Your task to perform on an android device: Do I have any events tomorrow? Image 0: 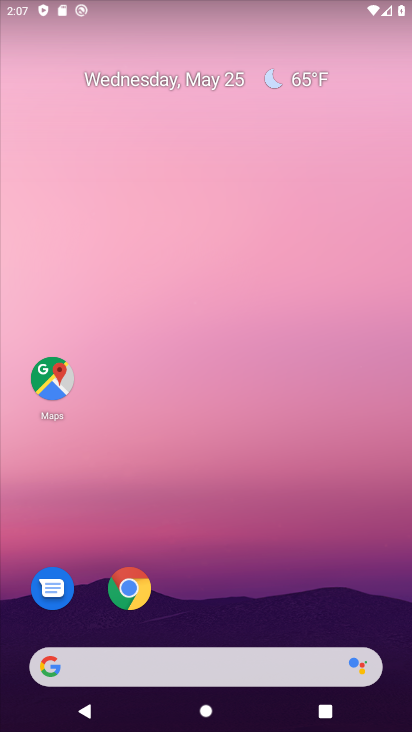
Step 0: drag from (203, 547) to (219, 119)
Your task to perform on an android device: Do I have any events tomorrow? Image 1: 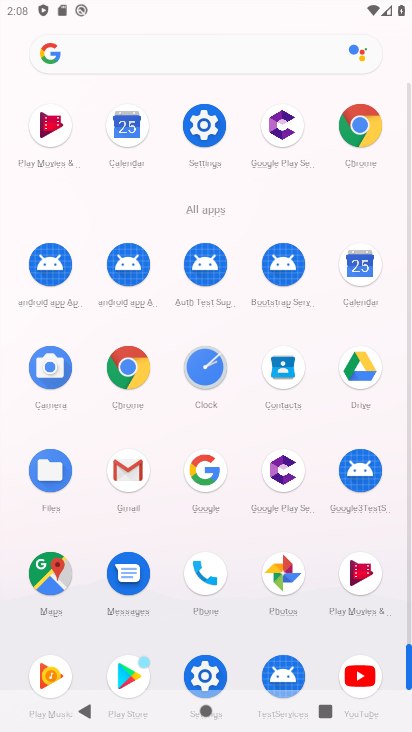
Step 1: click (354, 264)
Your task to perform on an android device: Do I have any events tomorrow? Image 2: 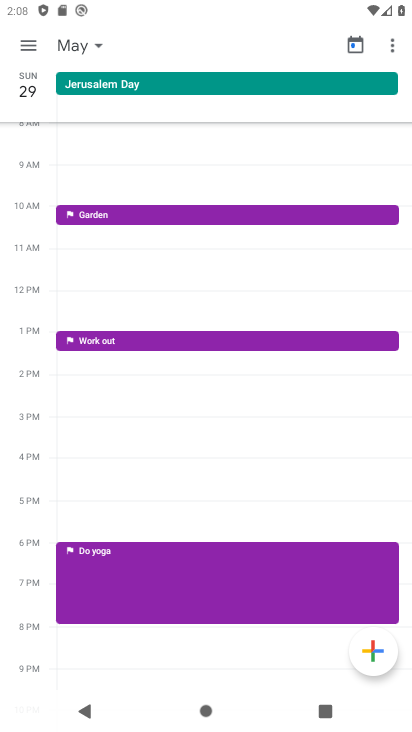
Step 2: click (88, 51)
Your task to perform on an android device: Do I have any events tomorrow? Image 3: 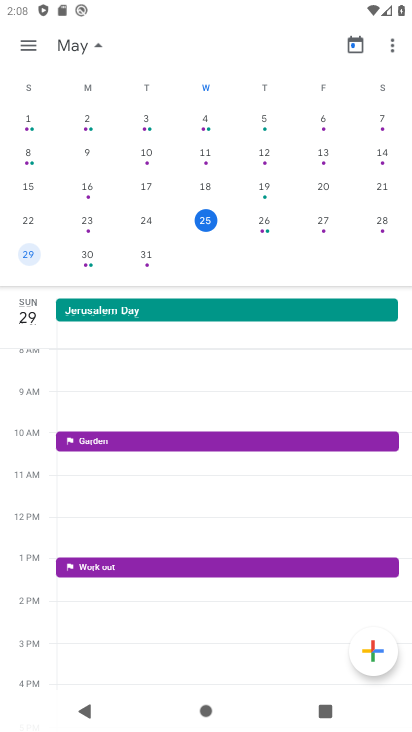
Step 3: click (266, 219)
Your task to perform on an android device: Do I have any events tomorrow? Image 4: 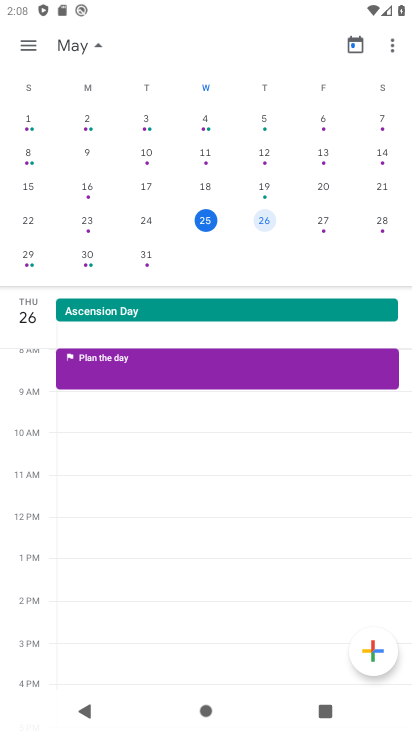
Step 4: task complete